Your task to perform on an android device: change the upload size in google photos Image 0: 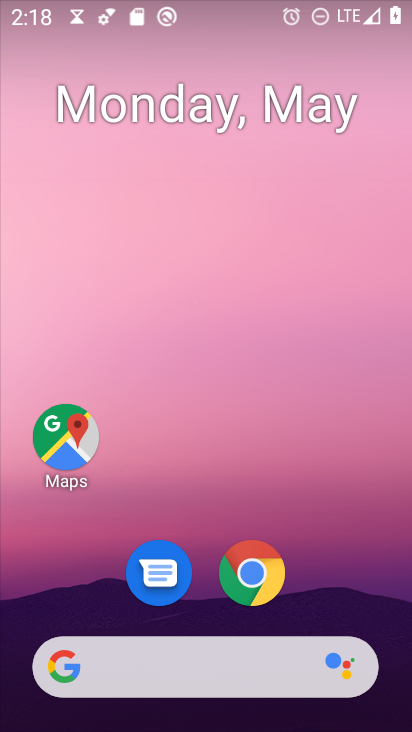
Step 0: drag from (288, 673) to (369, 91)
Your task to perform on an android device: change the upload size in google photos Image 1: 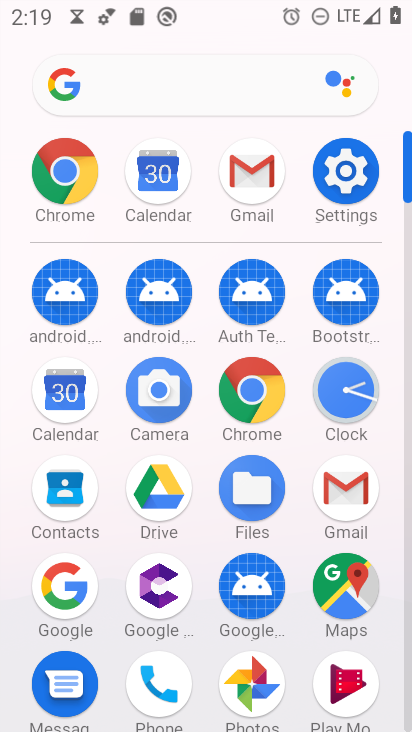
Step 1: click (271, 696)
Your task to perform on an android device: change the upload size in google photos Image 2: 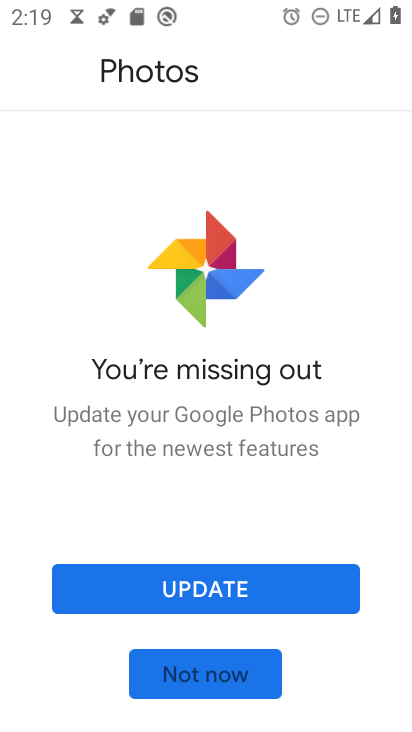
Step 2: click (228, 599)
Your task to perform on an android device: change the upload size in google photos Image 3: 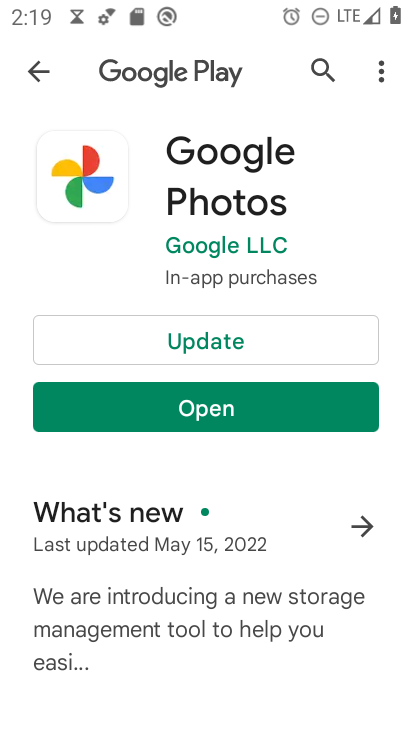
Step 3: click (256, 361)
Your task to perform on an android device: change the upload size in google photos Image 4: 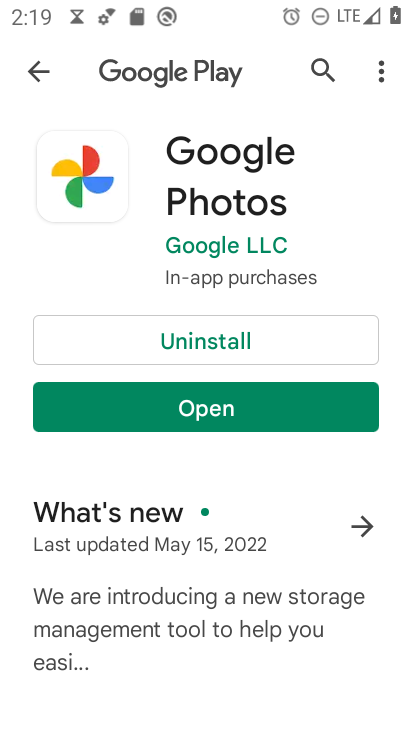
Step 4: click (160, 414)
Your task to perform on an android device: change the upload size in google photos Image 5: 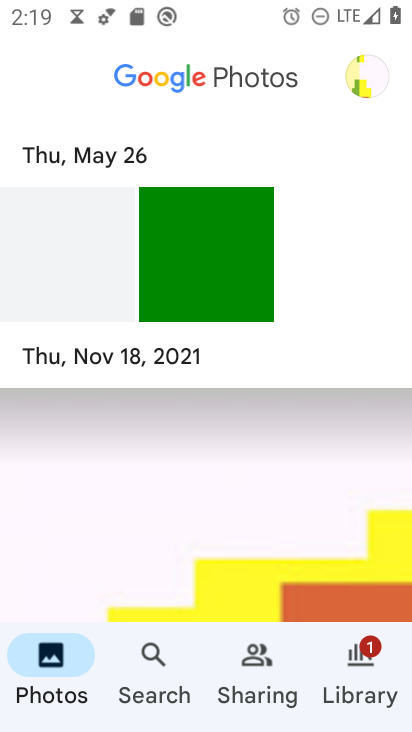
Step 5: click (366, 80)
Your task to perform on an android device: change the upload size in google photos Image 6: 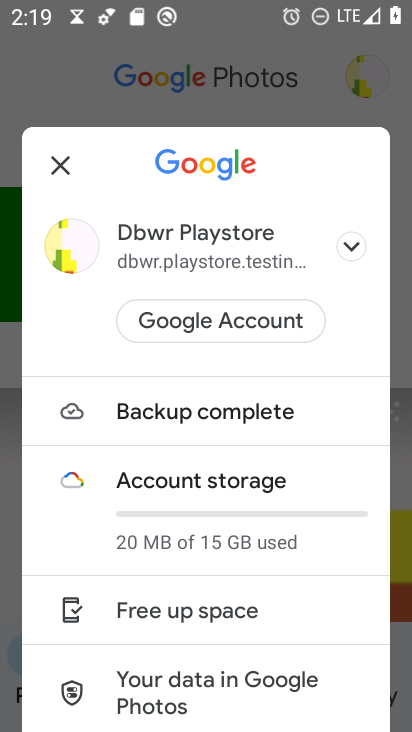
Step 6: drag from (318, 622) to (327, 107)
Your task to perform on an android device: change the upload size in google photos Image 7: 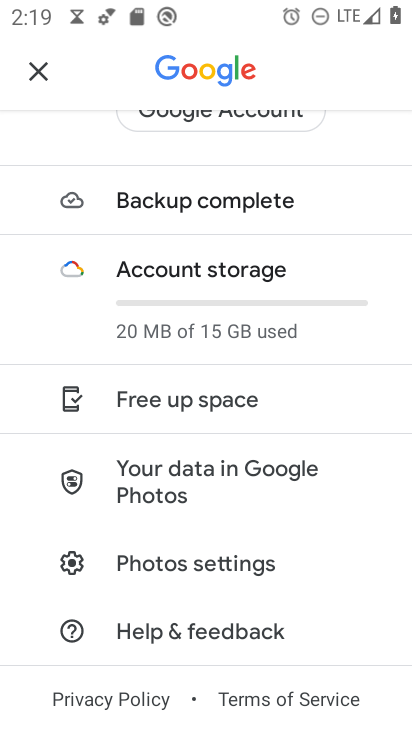
Step 7: click (278, 567)
Your task to perform on an android device: change the upload size in google photos Image 8: 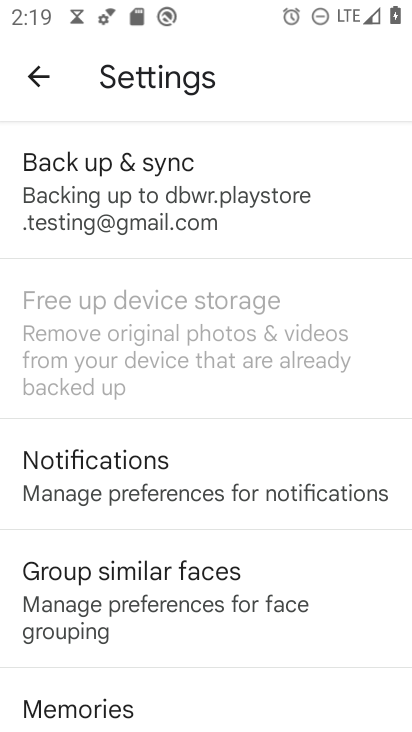
Step 8: click (199, 219)
Your task to perform on an android device: change the upload size in google photos Image 9: 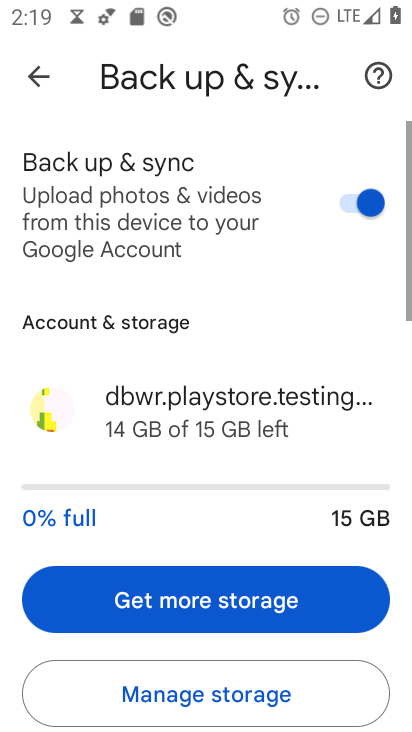
Step 9: drag from (234, 485) to (265, 57)
Your task to perform on an android device: change the upload size in google photos Image 10: 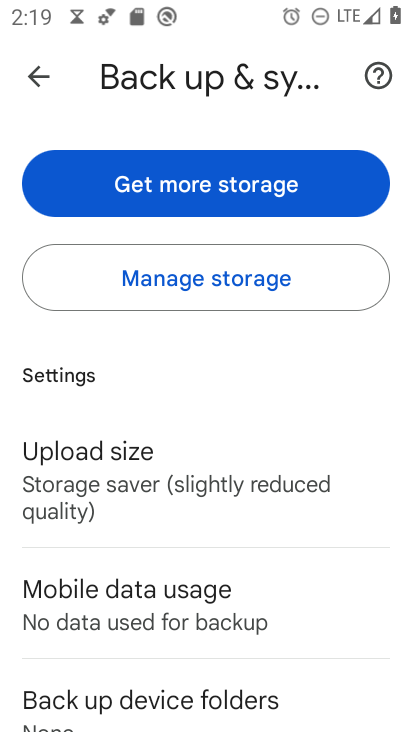
Step 10: click (210, 484)
Your task to perform on an android device: change the upload size in google photos Image 11: 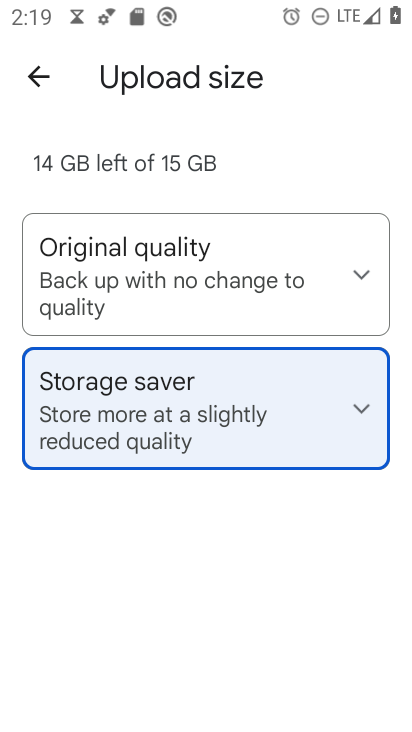
Step 11: click (188, 281)
Your task to perform on an android device: change the upload size in google photos Image 12: 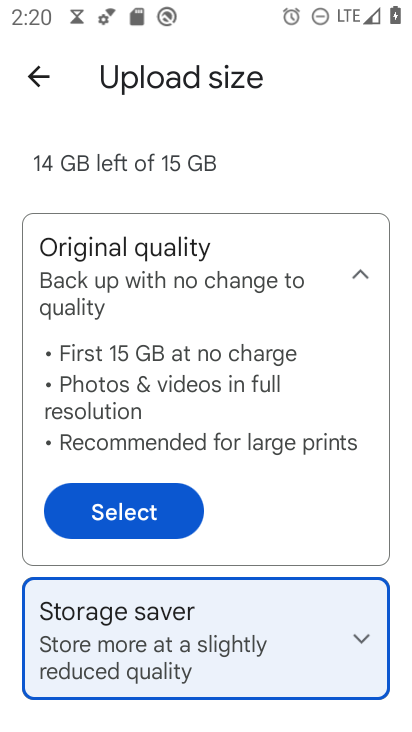
Step 12: click (162, 531)
Your task to perform on an android device: change the upload size in google photos Image 13: 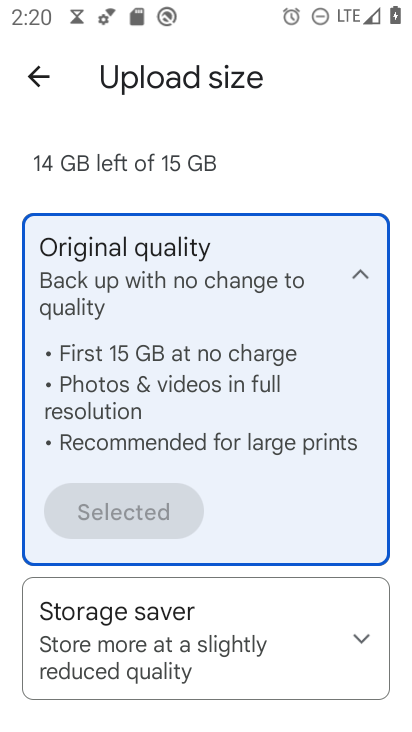
Step 13: task complete